Your task to perform on an android device: move an email to a new category in the gmail app Image 0: 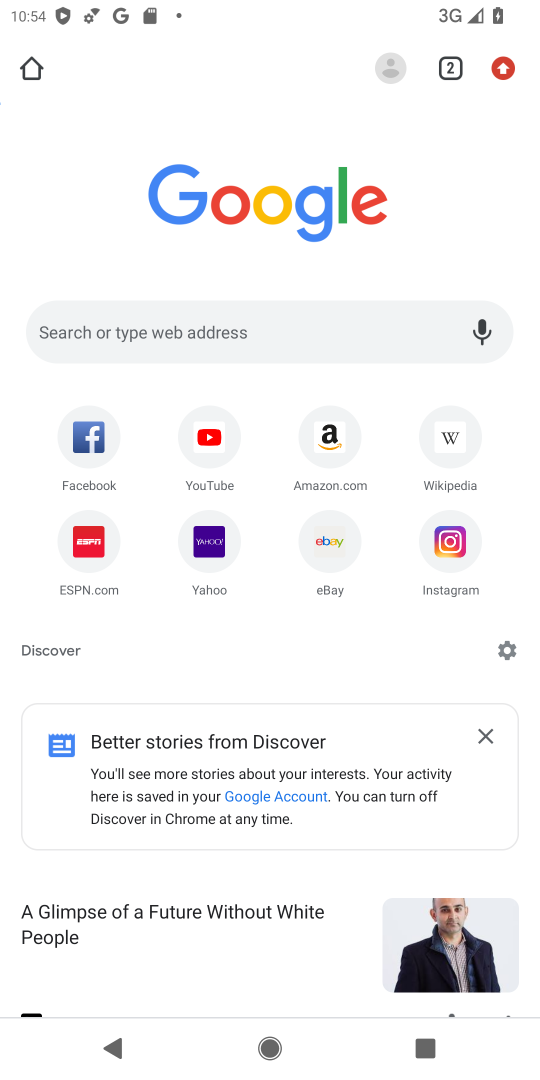
Step 0: press home button
Your task to perform on an android device: move an email to a new category in the gmail app Image 1: 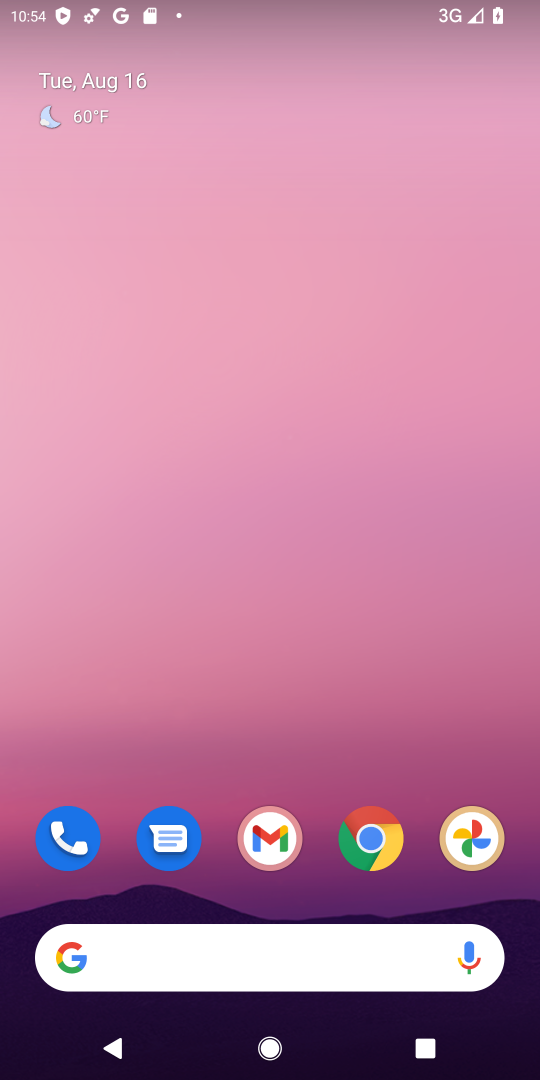
Step 1: click (258, 853)
Your task to perform on an android device: move an email to a new category in the gmail app Image 2: 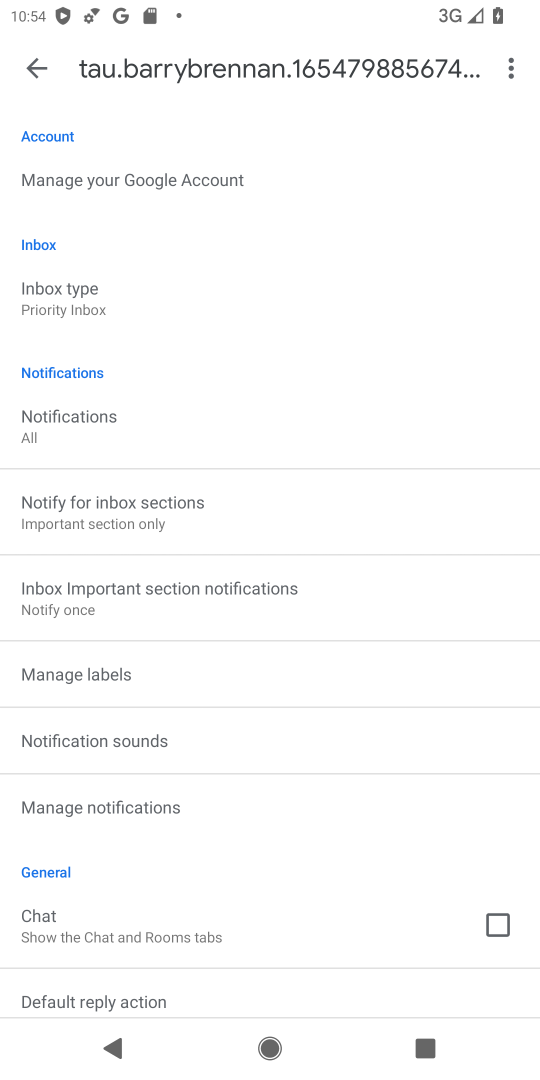
Step 2: press back button
Your task to perform on an android device: move an email to a new category in the gmail app Image 3: 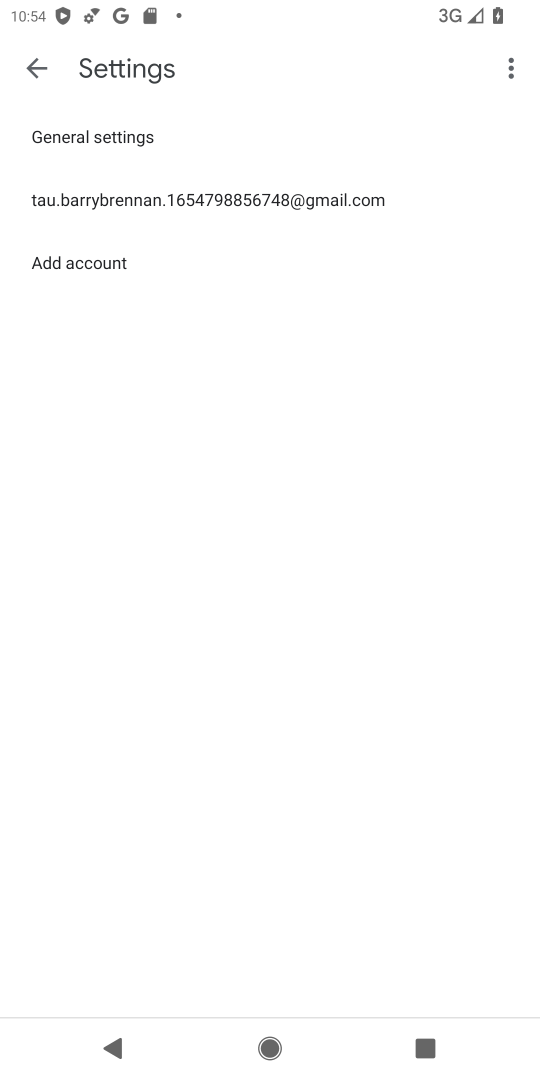
Step 3: press back button
Your task to perform on an android device: move an email to a new category in the gmail app Image 4: 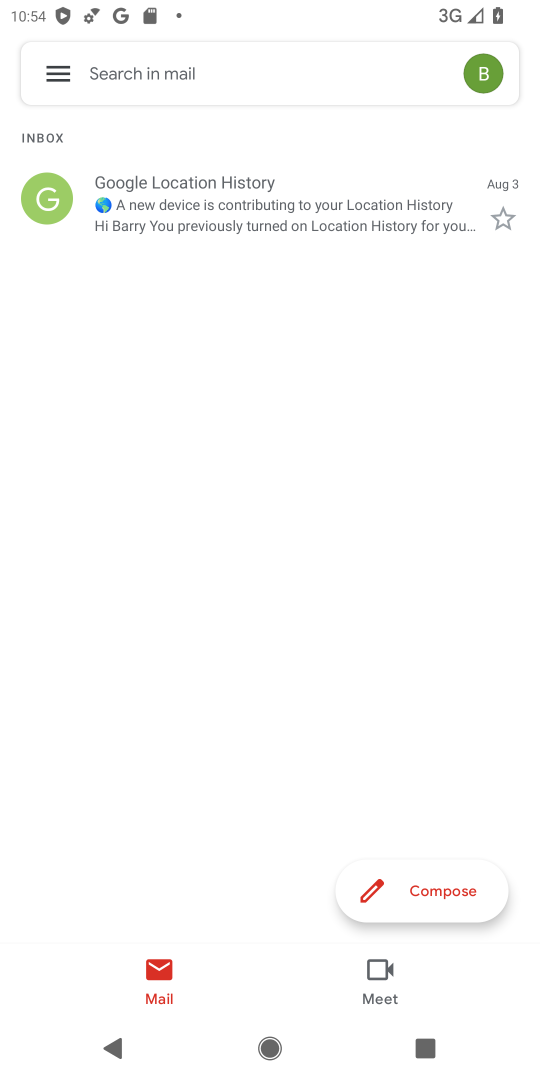
Step 4: click (238, 207)
Your task to perform on an android device: move an email to a new category in the gmail app Image 5: 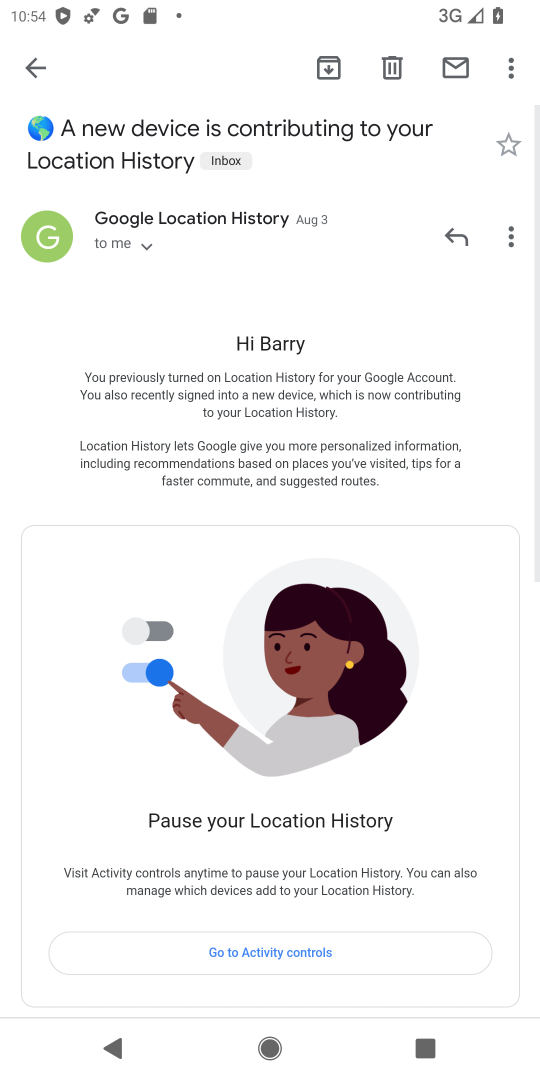
Step 5: click (518, 76)
Your task to perform on an android device: move an email to a new category in the gmail app Image 6: 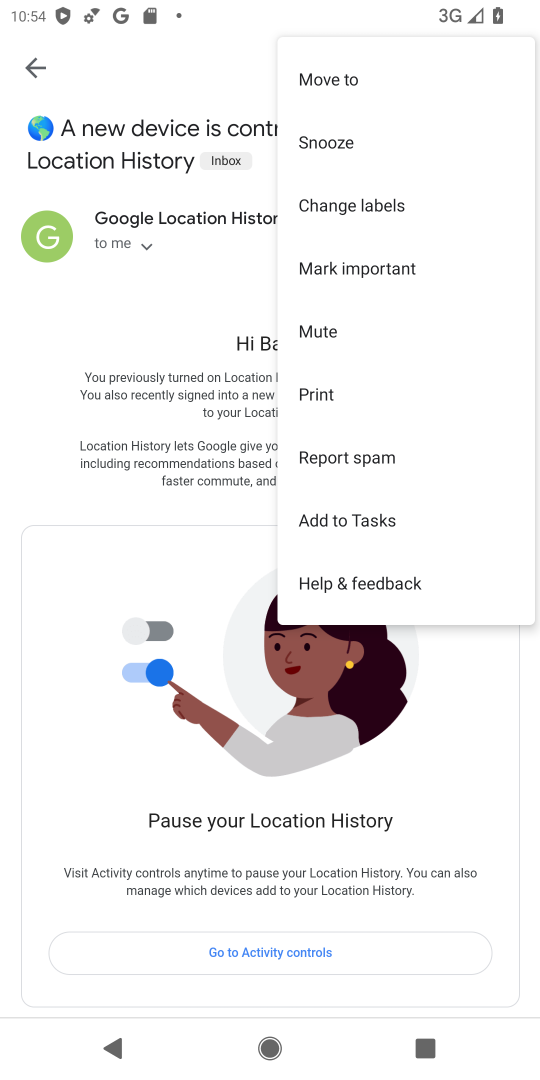
Step 6: click (316, 78)
Your task to perform on an android device: move an email to a new category in the gmail app Image 7: 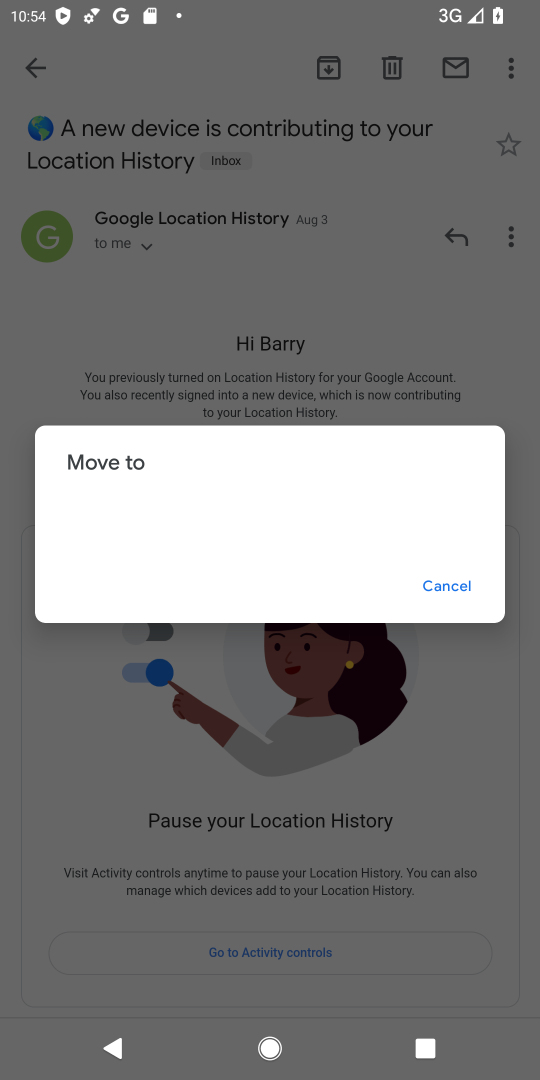
Step 7: click (451, 502)
Your task to perform on an android device: move an email to a new category in the gmail app Image 8: 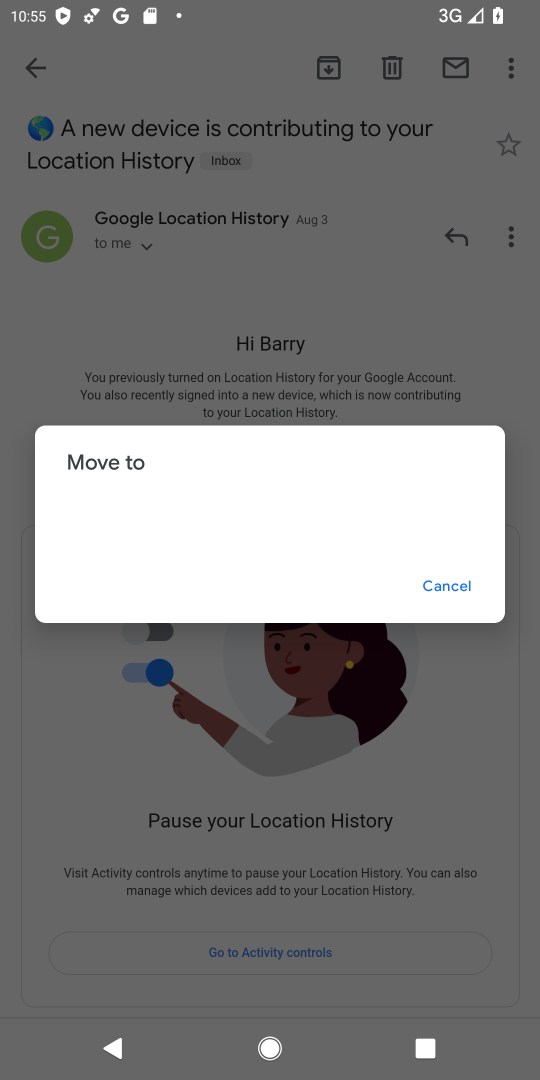
Step 8: task complete